Your task to perform on an android device: Open display settings Image 0: 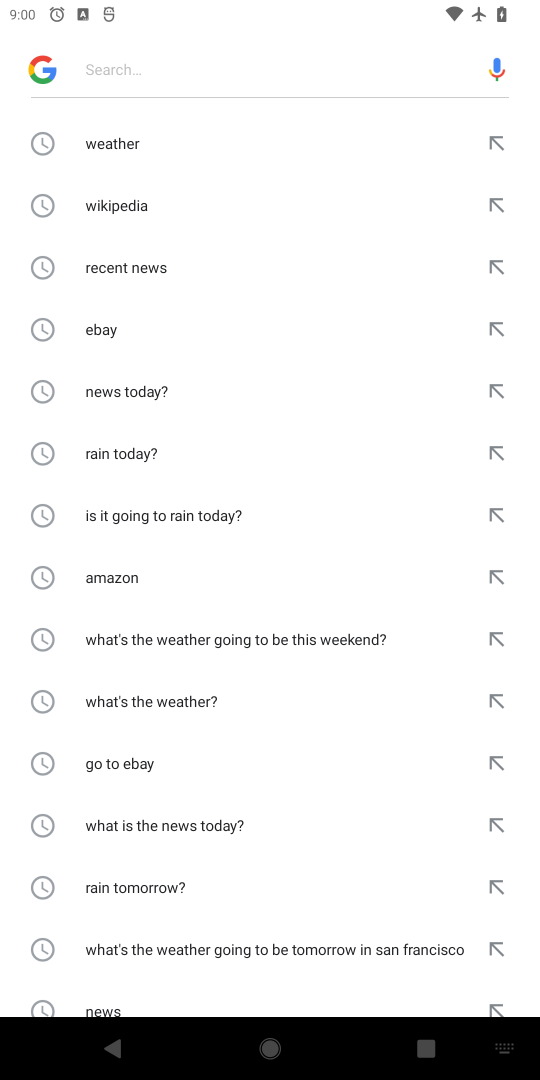
Step 0: press home button
Your task to perform on an android device: Open display settings Image 1: 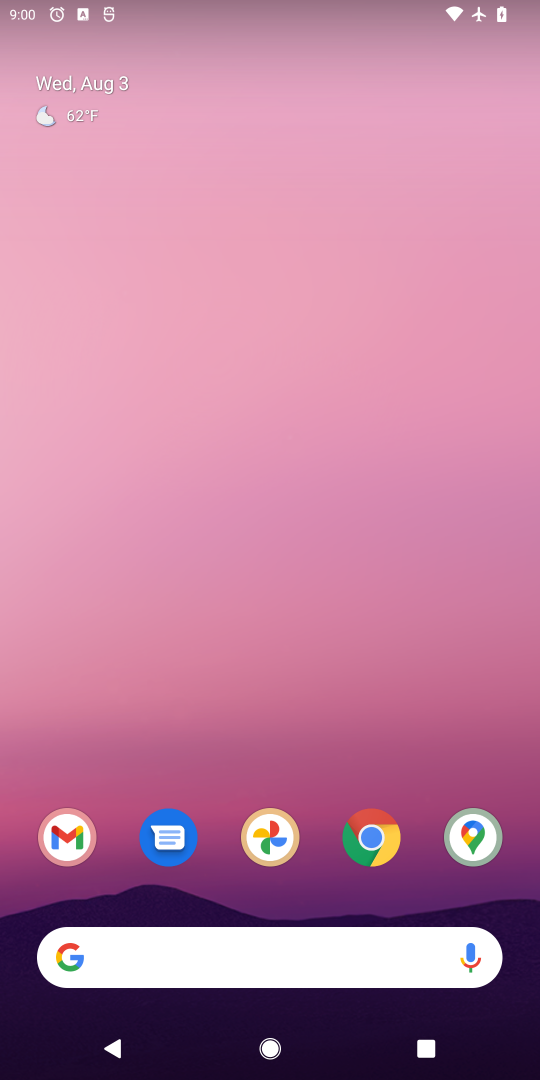
Step 1: drag from (314, 884) to (209, 116)
Your task to perform on an android device: Open display settings Image 2: 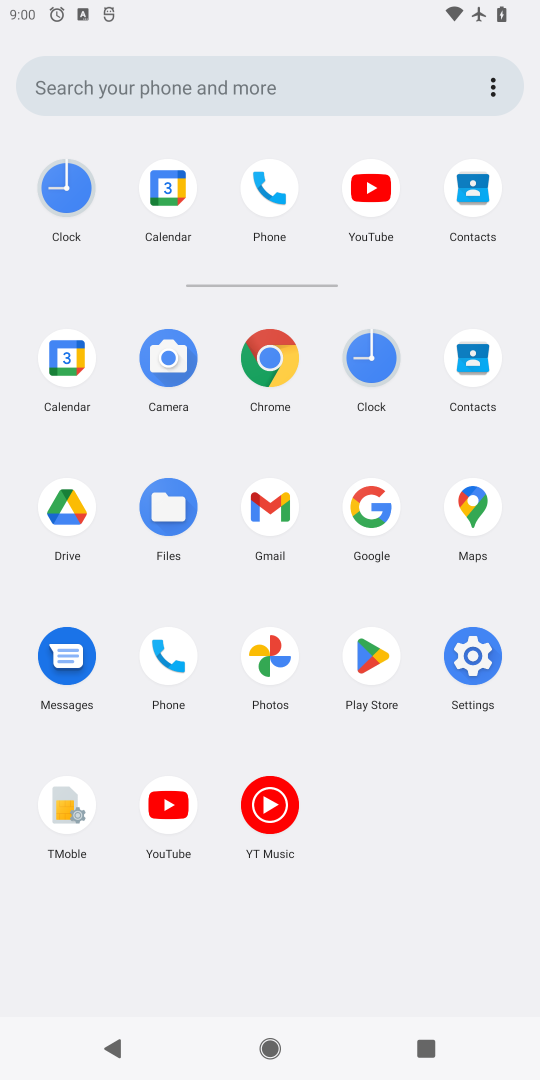
Step 2: click (480, 659)
Your task to perform on an android device: Open display settings Image 3: 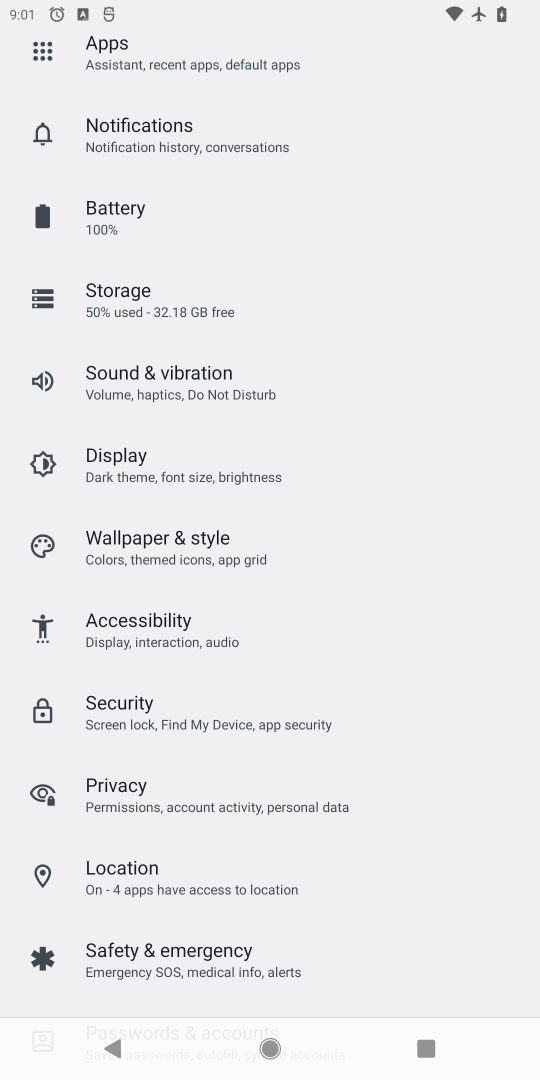
Step 3: click (109, 454)
Your task to perform on an android device: Open display settings Image 4: 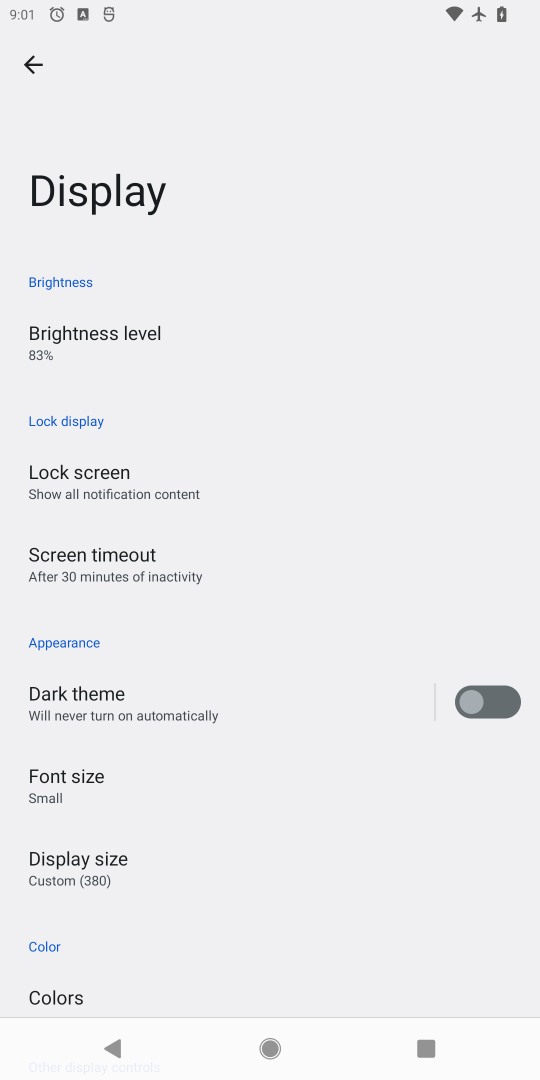
Step 4: task complete